Your task to perform on an android device: Open wifi settings Image 0: 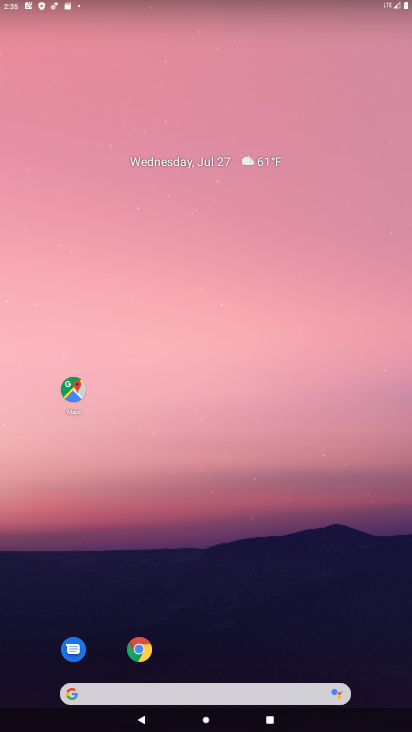
Step 0: drag from (198, 324) to (186, 151)
Your task to perform on an android device: Open wifi settings Image 1: 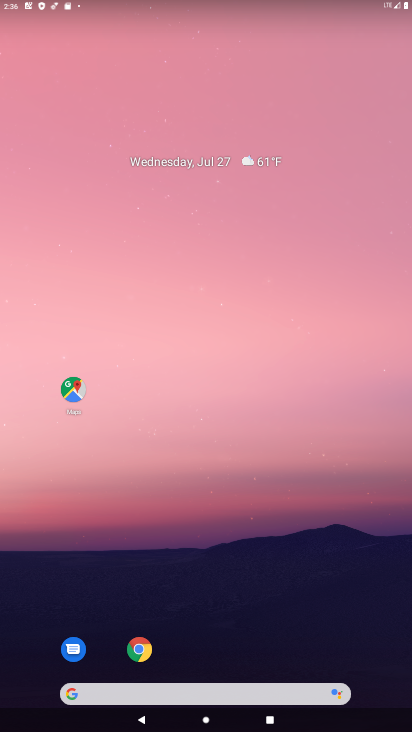
Step 1: drag from (189, 651) to (234, 26)
Your task to perform on an android device: Open wifi settings Image 2: 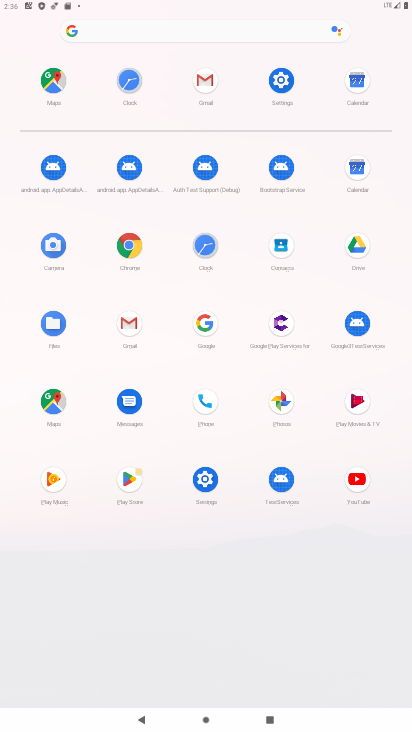
Step 2: click (203, 488)
Your task to perform on an android device: Open wifi settings Image 3: 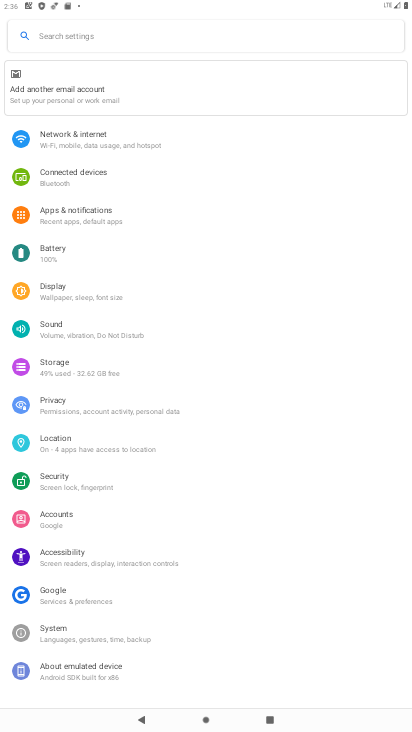
Step 3: click (97, 133)
Your task to perform on an android device: Open wifi settings Image 4: 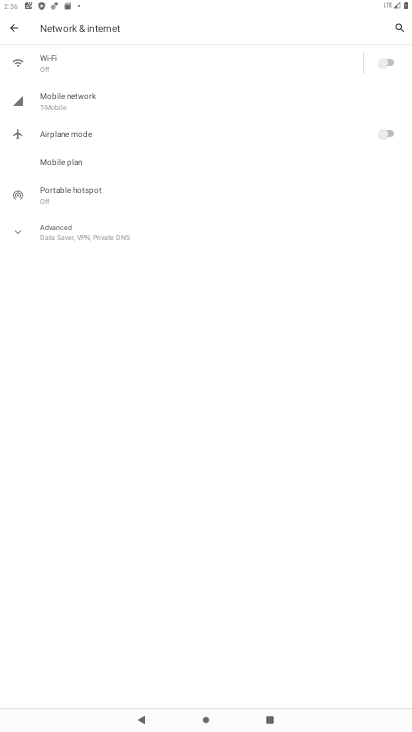
Step 4: click (61, 57)
Your task to perform on an android device: Open wifi settings Image 5: 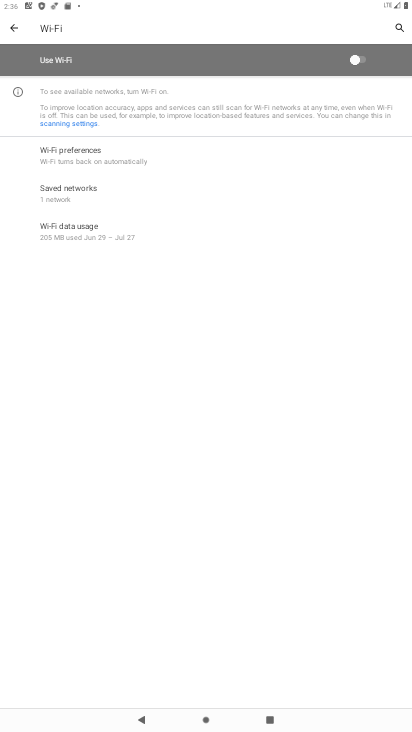
Step 5: task complete